Your task to perform on an android device: Open maps Image 0: 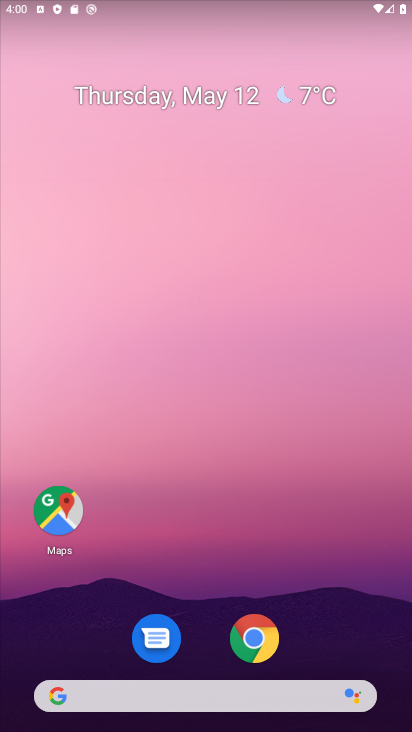
Step 0: click (69, 512)
Your task to perform on an android device: Open maps Image 1: 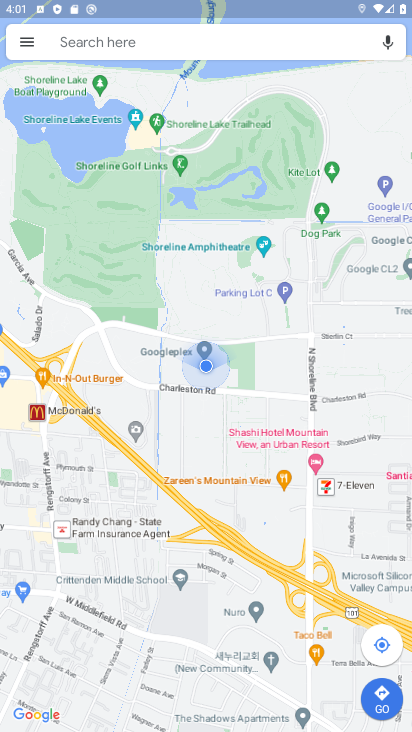
Step 1: task complete